Your task to perform on an android device: Is it going to rain tomorrow? Image 0: 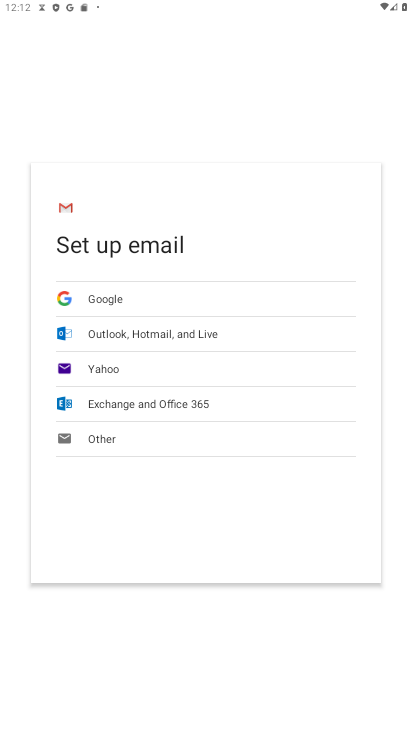
Step 0: press home button
Your task to perform on an android device: Is it going to rain tomorrow? Image 1: 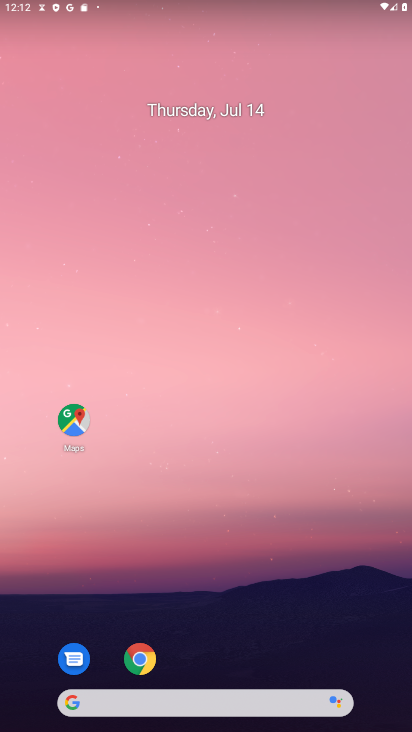
Step 1: click (116, 702)
Your task to perform on an android device: Is it going to rain tomorrow? Image 2: 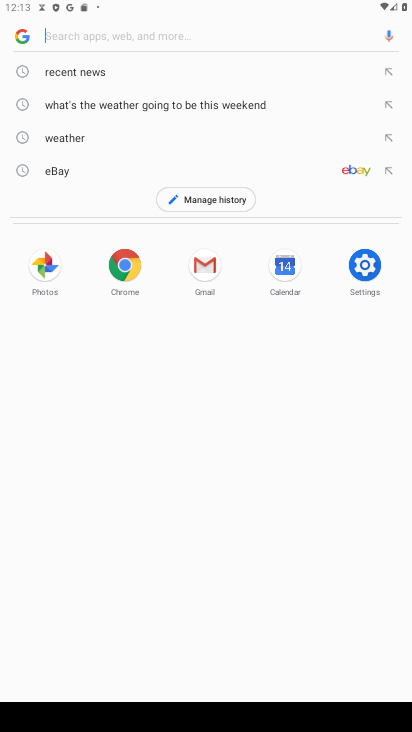
Step 2: type "Is it going to rain tomorrow?"
Your task to perform on an android device: Is it going to rain tomorrow? Image 3: 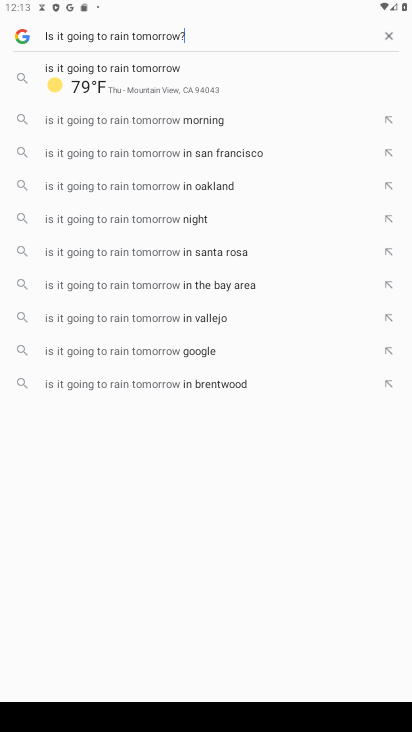
Step 3: type ""
Your task to perform on an android device: Is it going to rain tomorrow? Image 4: 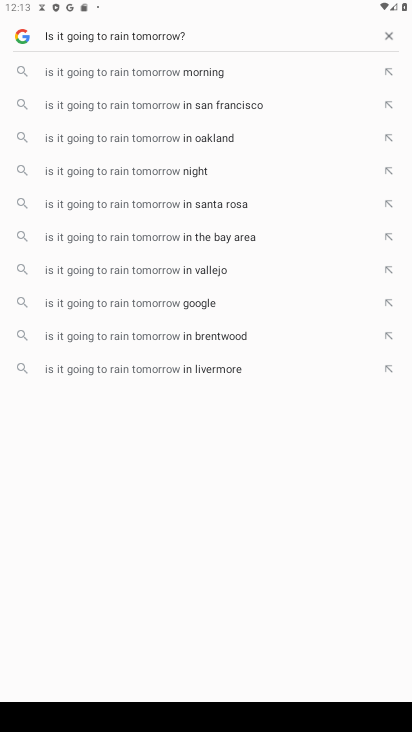
Step 4: type ""
Your task to perform on an android device: Is it going to rain tomorrow? Image 5: 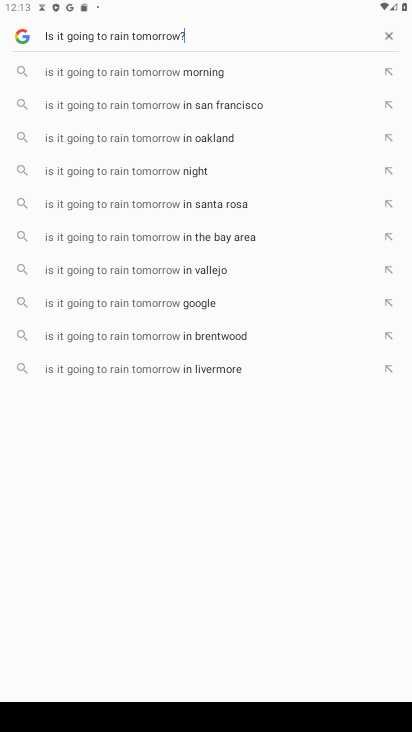
Step 5: type ""
Your task to perform on an android device: Is it going to rain tomorrow? Image 6: 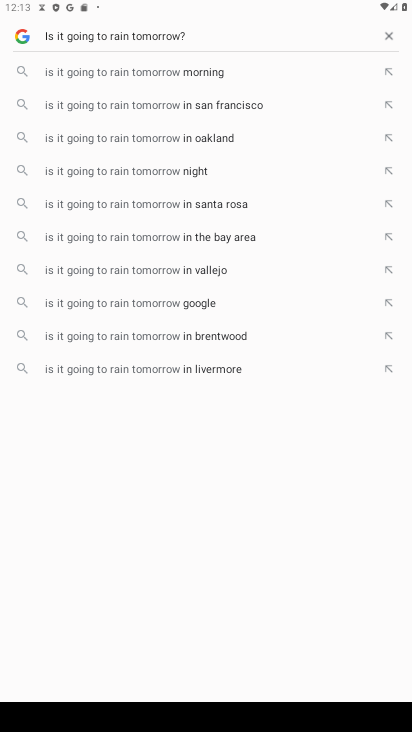
Step 6: task complete